Your task to perform on an android device: Open ESPN.com Image 0: 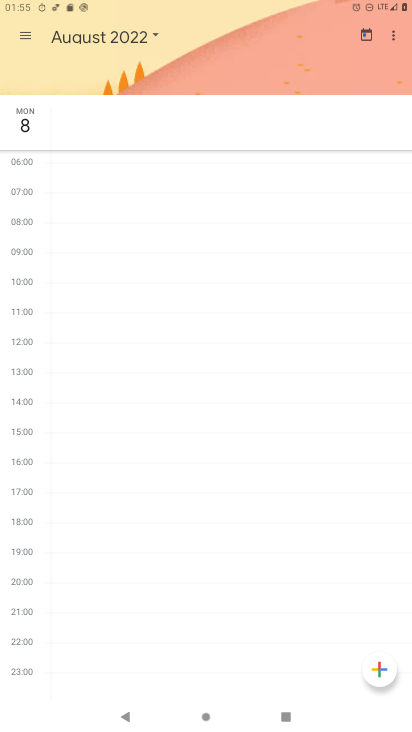
Step 0: press home button
Your task to perform on an android device: Open ESPN.com Image 1: 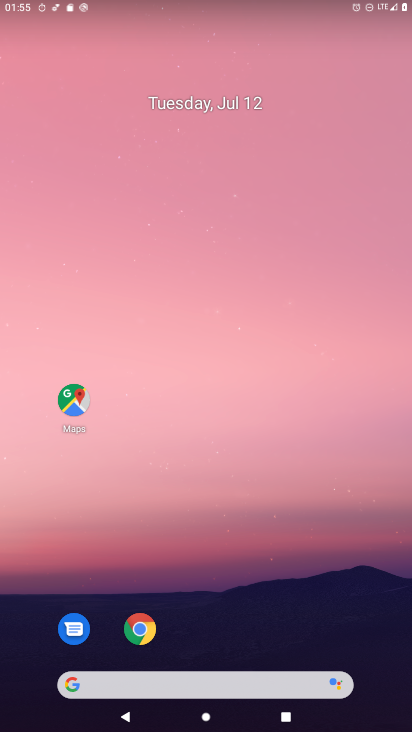
Step 1: click (148, 680)
Your task to perform on an android device: Open ESPN.com Image 2: 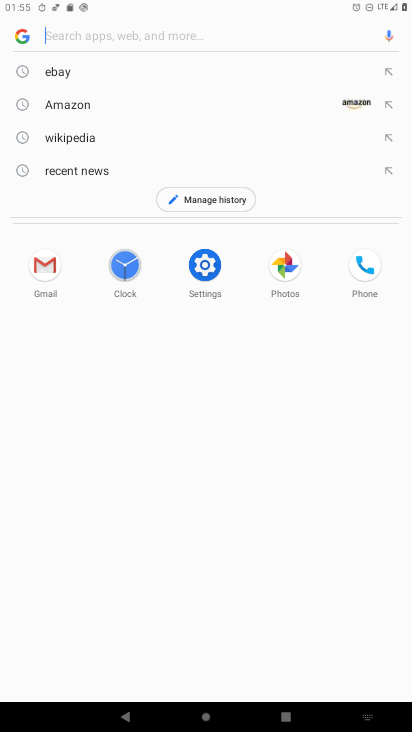
Step 2: type "ESPN.com"
Your task to perform on an android device: Open ESPN.com Image 3: 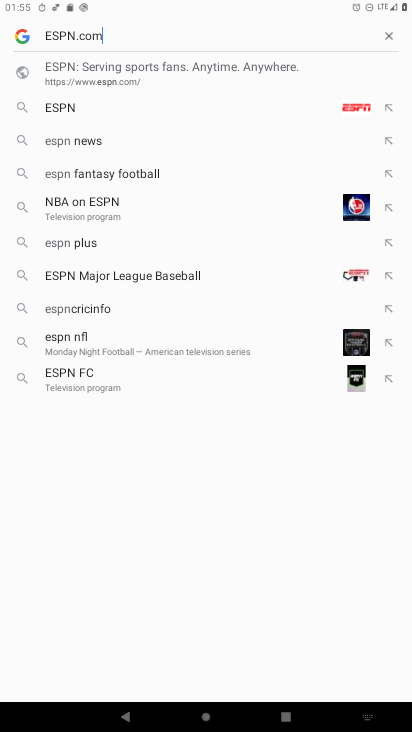
Step 3: type ""
Your task to perform on an android device: Open ESPN.com Image 4: 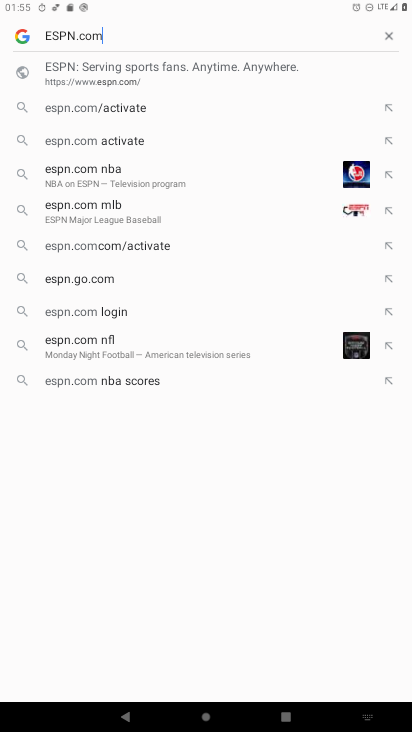
Step 4: click (59, 64)
Your task to perform on an android device: Open ESPN.com Image 5: 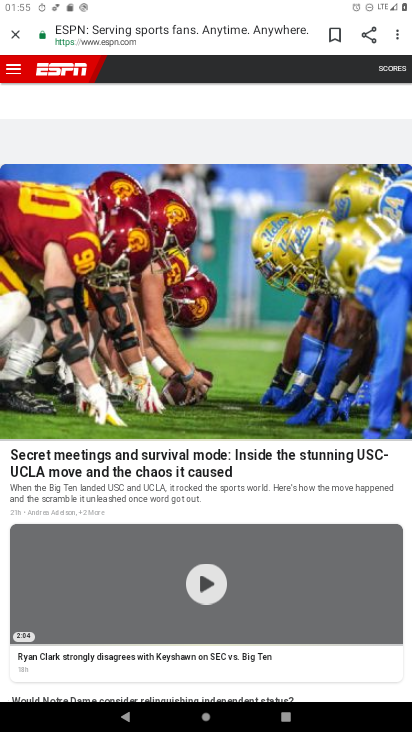
Step 5: task complete